Your task to perform on an android device: find which apps use the phone's location Image 0: 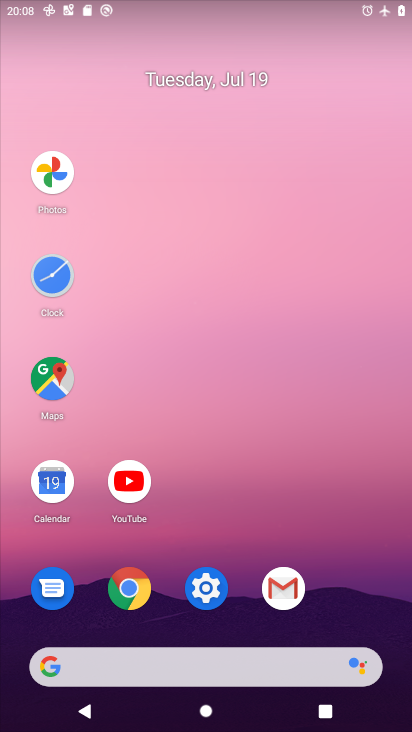
Step 0: click (211, 598)
Your task to perform on an android device: find which apps use the phone's location Image 1: 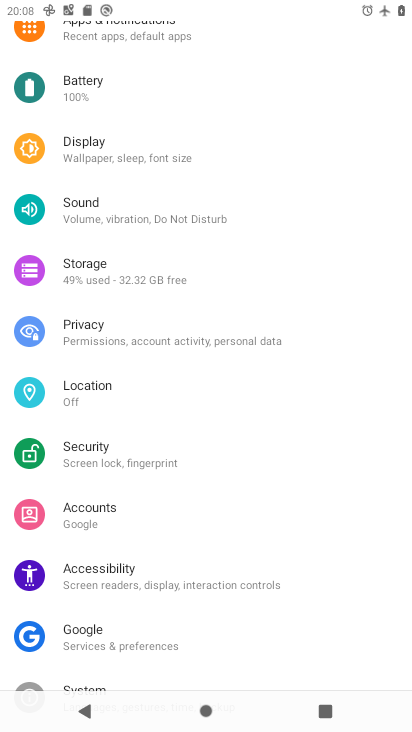
Step 1: click (104, 386)
Your task to perform on an android device: find which apps use the phone's location Image 2: 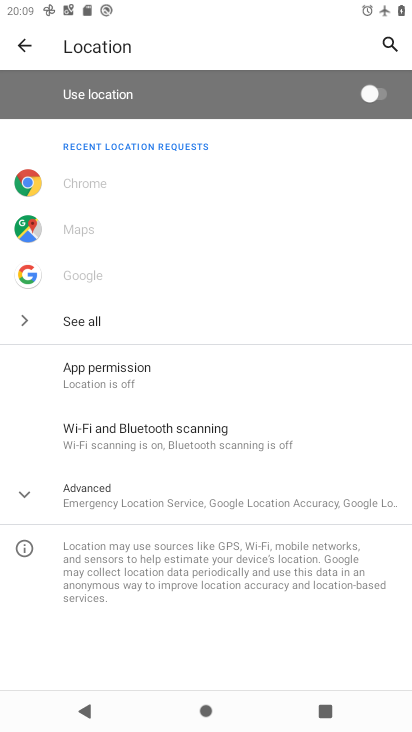
Step 2: click (77, 321)
Your task to perform on an android device: find which apps use the phone's location Image 3: 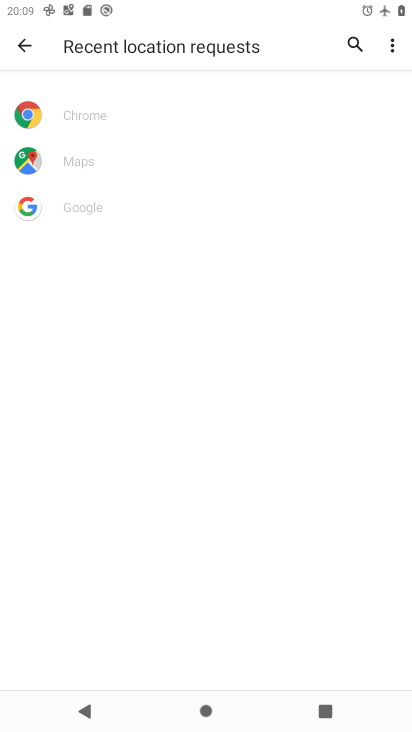
Step 3: task complete